Your task to perform on an android device: open app "Messages" (install if not already installed), go to login, and select forgot password Image 0: 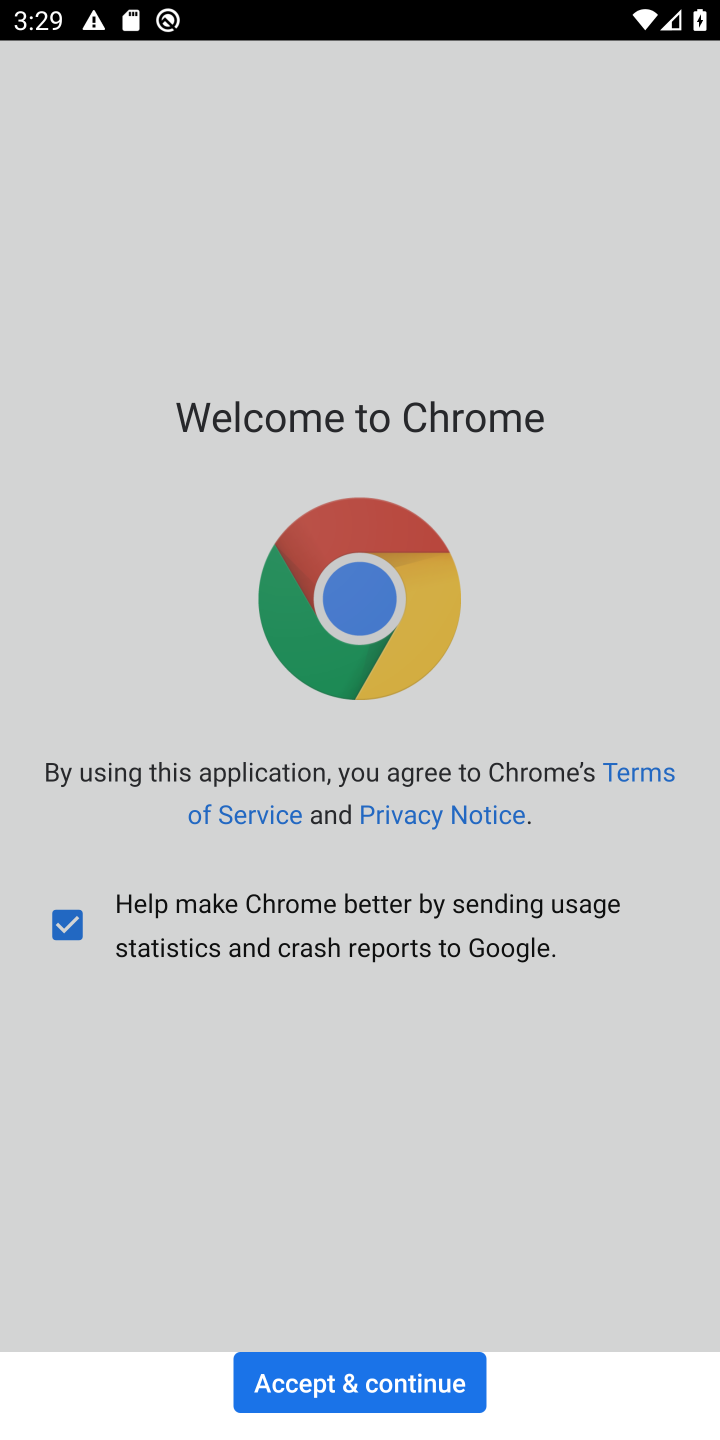
Step 0: press home button
Your task to perform on an android device: open app "Messages" (install if not already installed), go to login, and select forgot password Image 1: 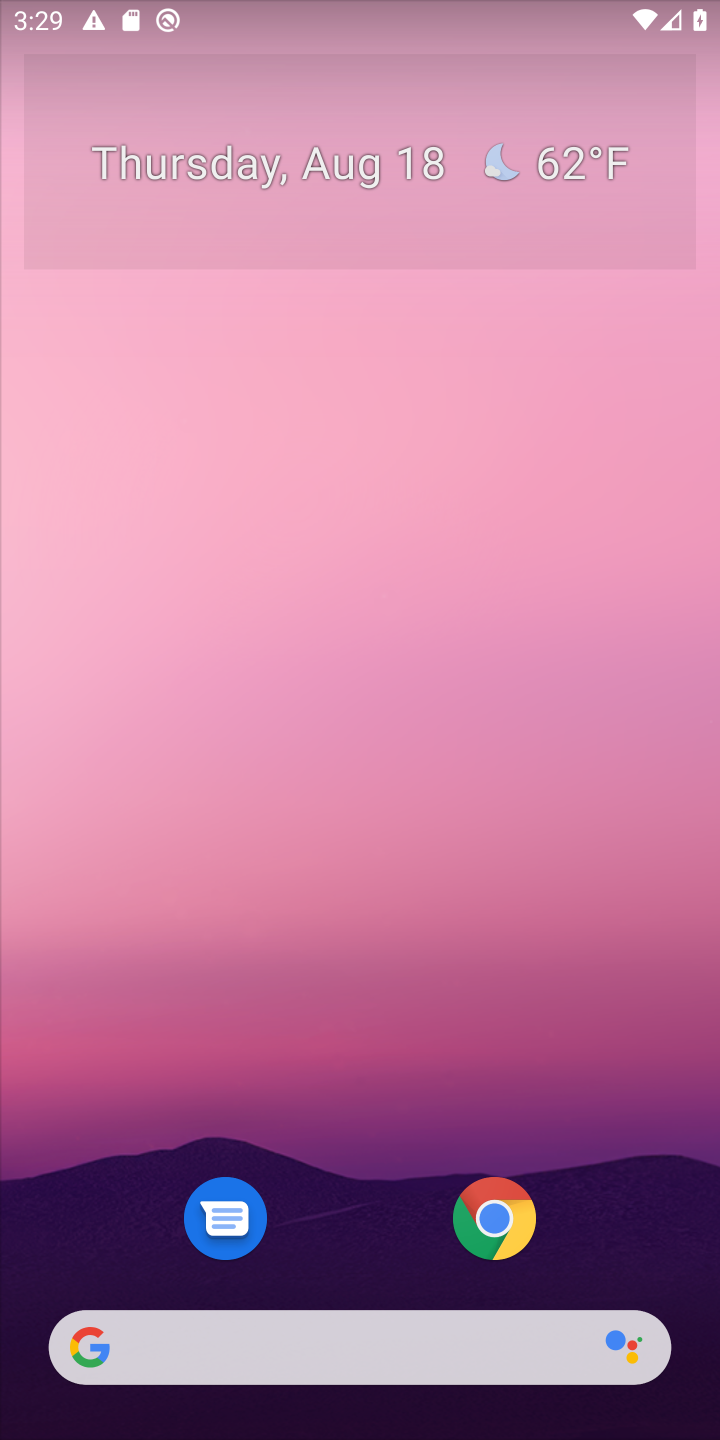
Step 1: drag from (295, 1166) to (322, 367)
Your task to perform on an android device: open app "Messages" (install if not already installed), go to login, and select forgot password Image 2: 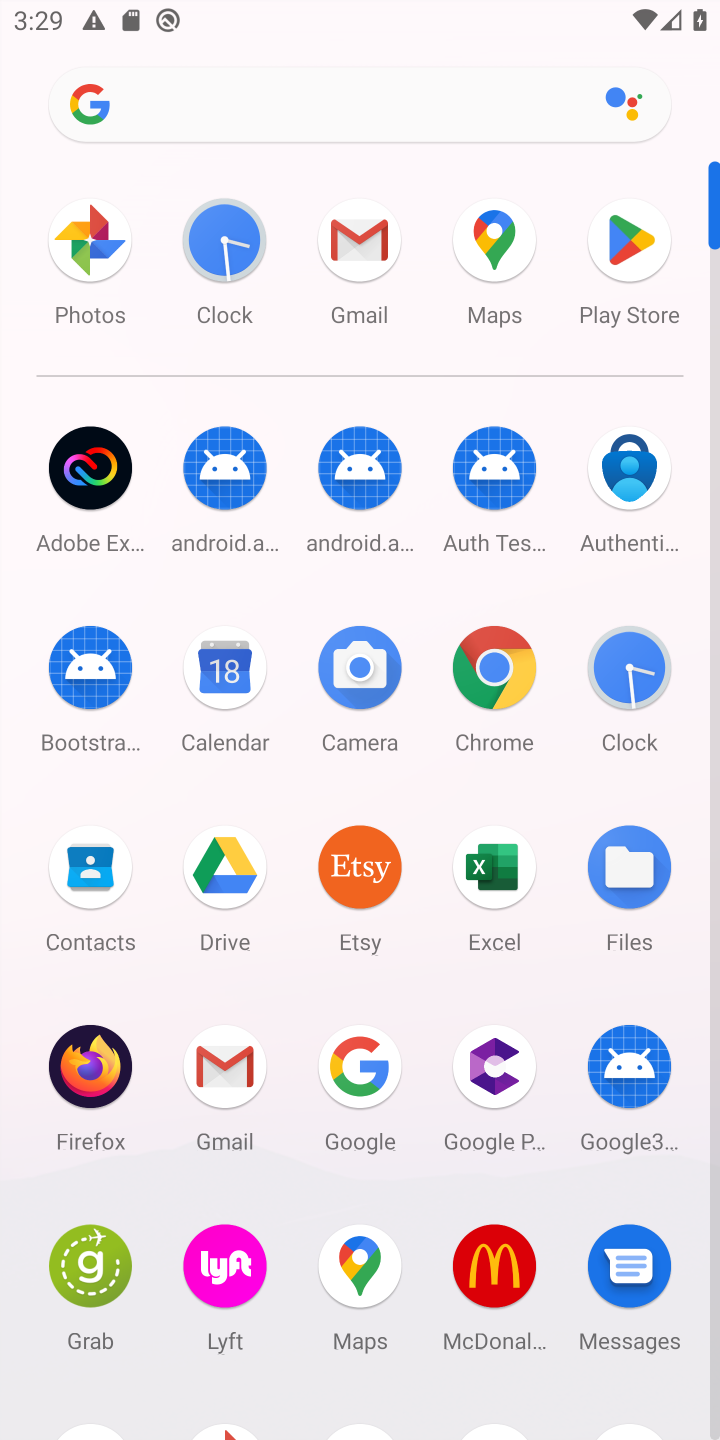
Step 2: click (617, 239)
Your task to perform on an android device: open app "Messages" (install if not already installed), go to login, and select forgot password Image 3: 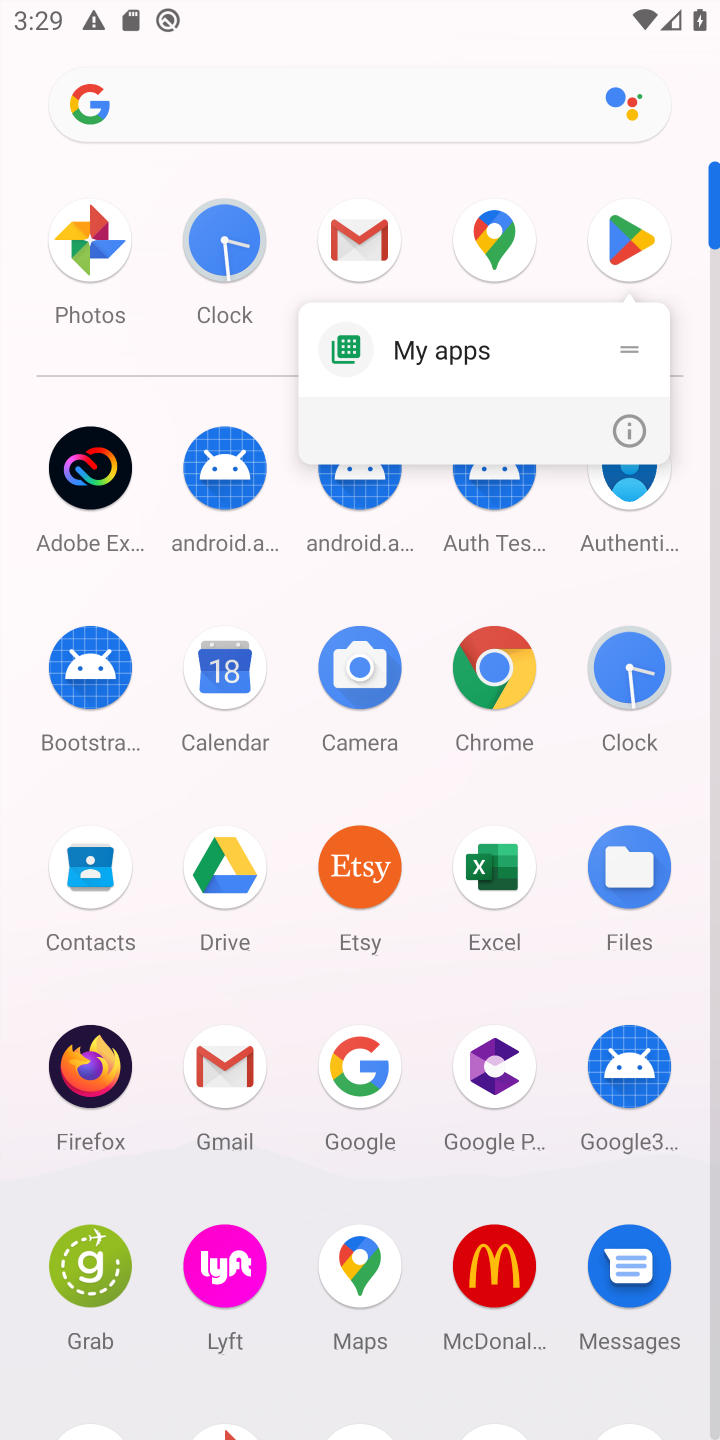
Step 3: click (617, 239)
Your task to perform on an android device: open app "Messages" (install if not already installed), go to login, and select forgot password Image 4: 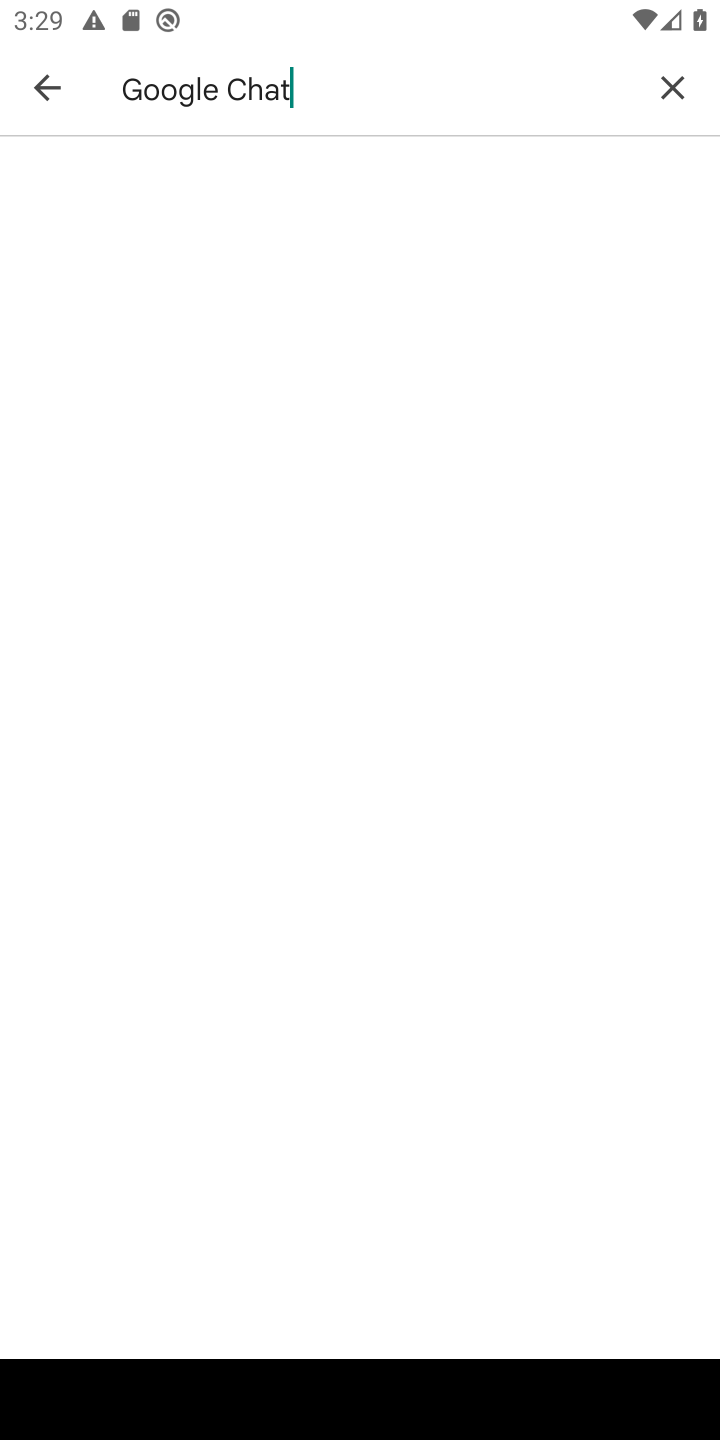
Step 4: click (678, 77)
Your task to perform on an android device: open app "Messages" (install if not already installed), go to login, and select forgot password Image 5: 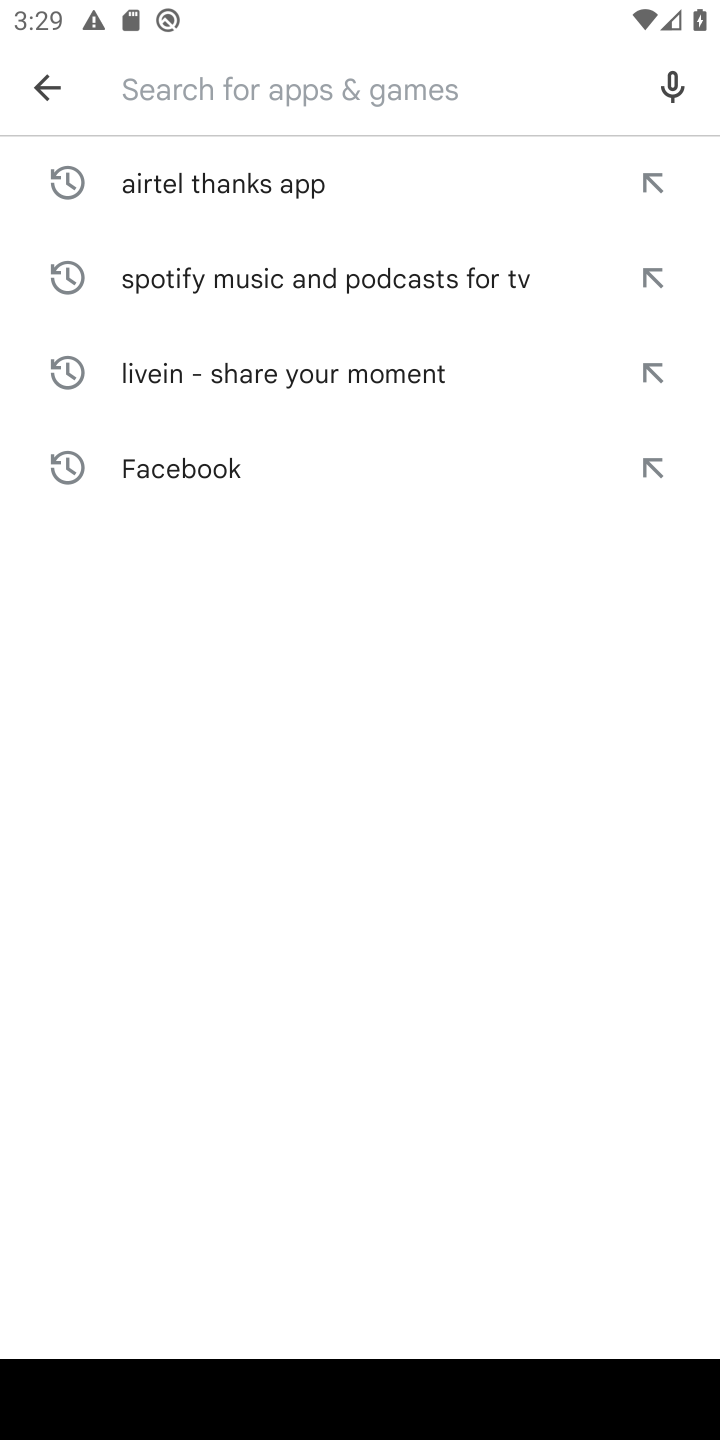
Step 5: click (454, 77)
Your task to perform on an android device: open app "Messages" (install if not already installed), go to login, and select forgot password Image 6: 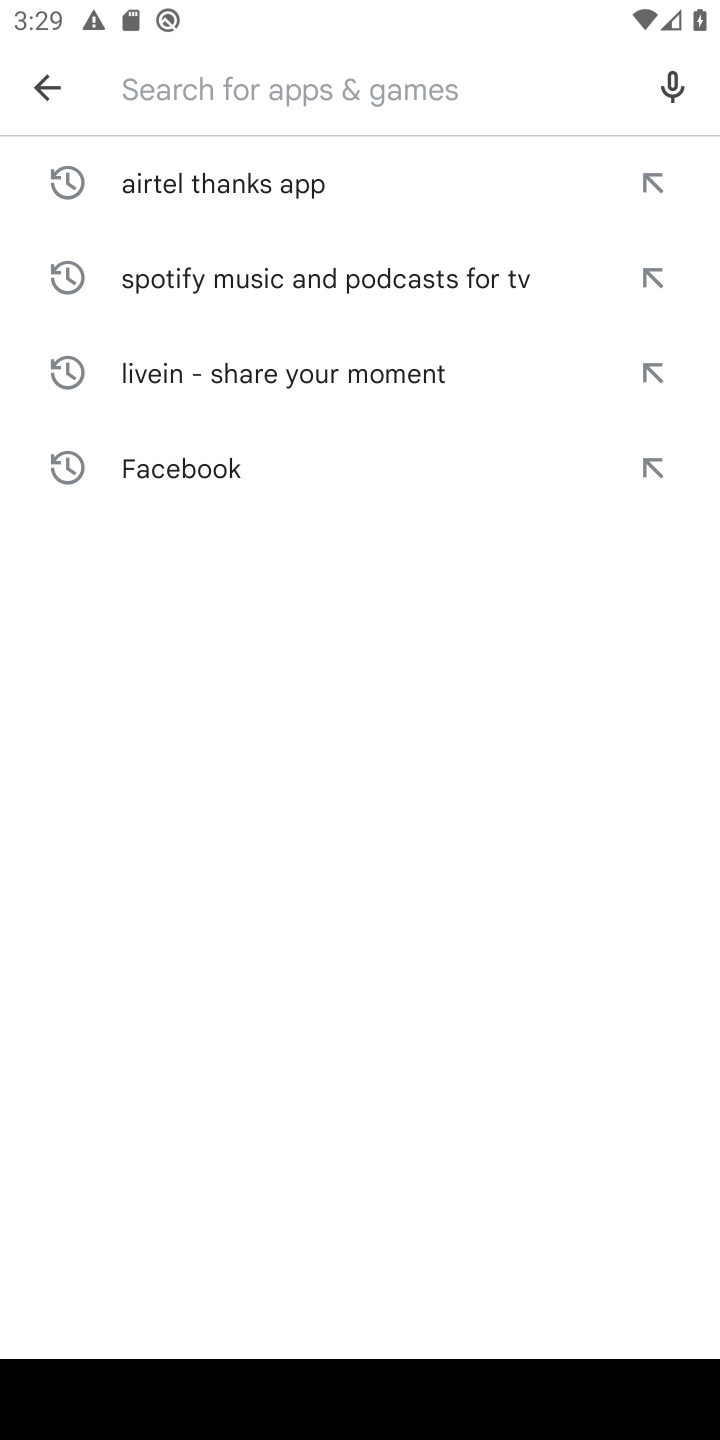
Step 6: type "Messages"
Your task to perform on an android device: open app "Messages" (install if not already installed), go to login, and select forgot password Image 7: 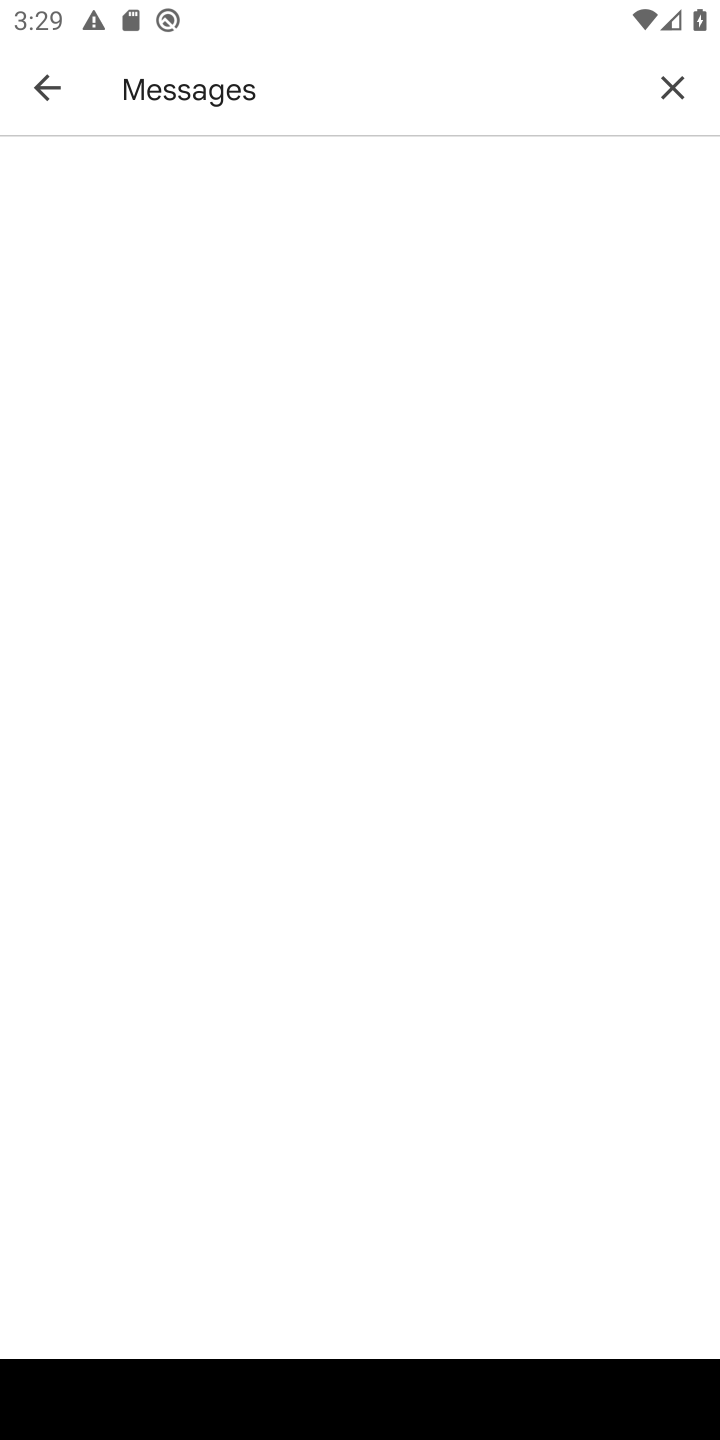
Step 7: task complete